Your task to perform on an android device: Go to Reddit.com Image 0: 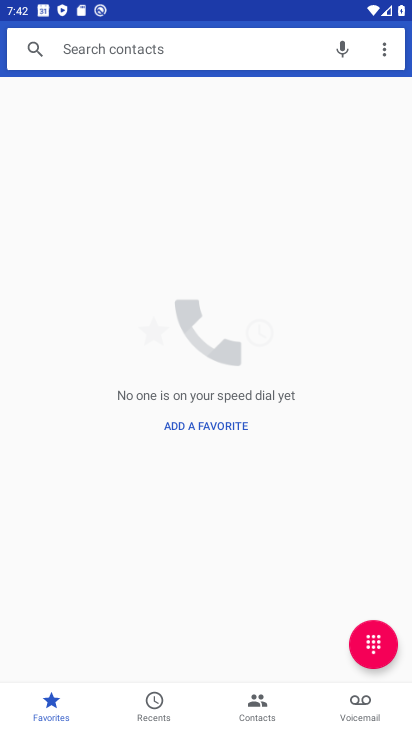
Step 0: press home button
Your task to perform on an android device: Go to Reddit.com Image 1: 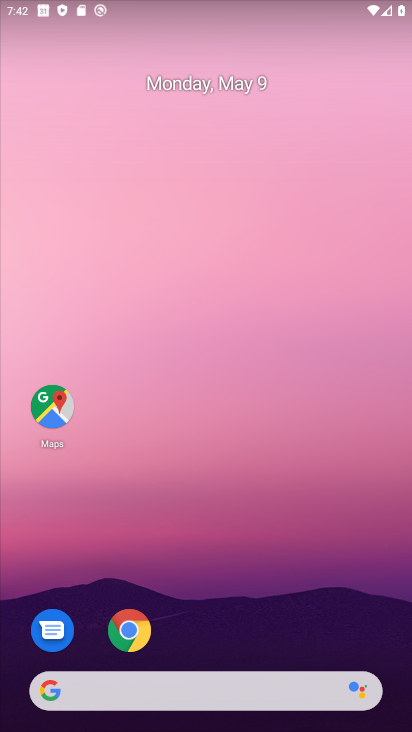
Step 1: drag from (353, 609) to (322, 113)
Your task to perform on an android device: Go to Reddit.com Image 2: 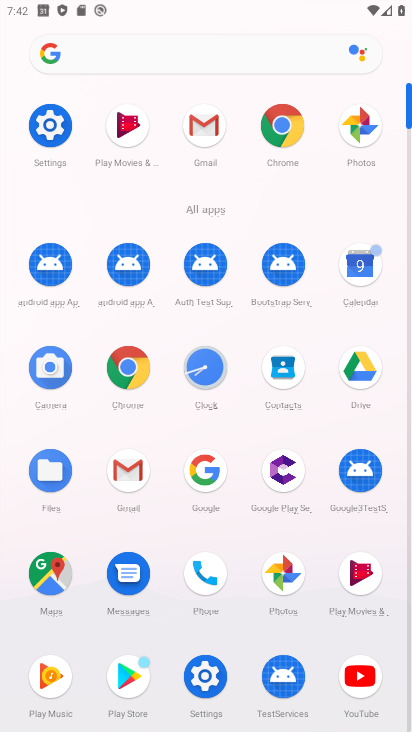
Step 2: click (300, 140)
Your task to perform on an android device: Go to Reddit.com Image 3: 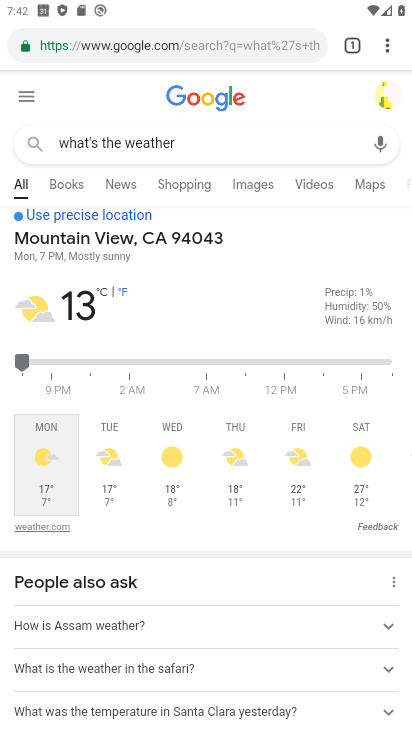
Step 3: click (194, 52)
Your task to perform on an android device: Go to Reddit.com Image 4: 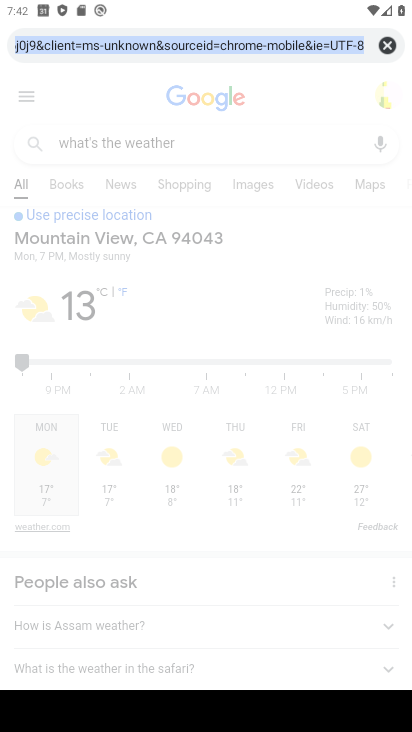
Step 4: click (390, 45)
Your task to perform on an android device: Go to Reddit.com Image 5: 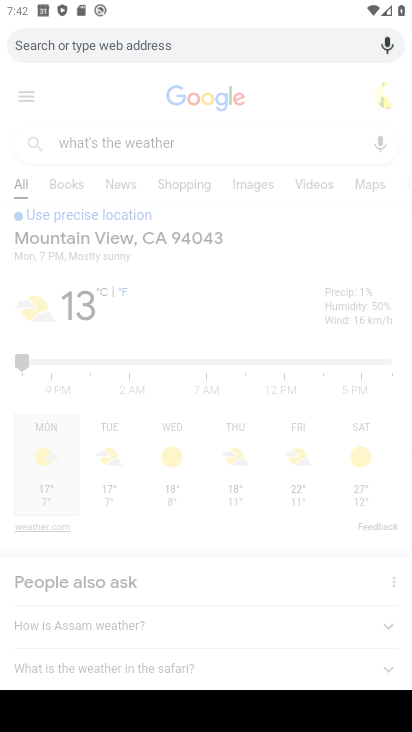
Step 5: type "reddit.com"
Your task to perform on an android device: Go to Reddit.com Image 6: 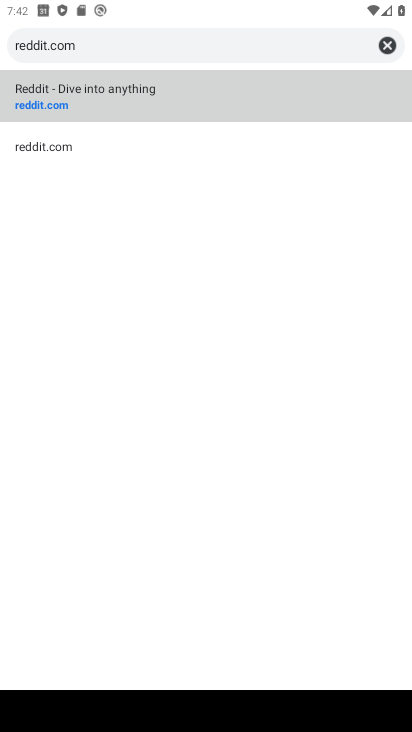
Step 6: click (108, 96)
Your task to perform on an android device: Go to Reddit.com Image 7: 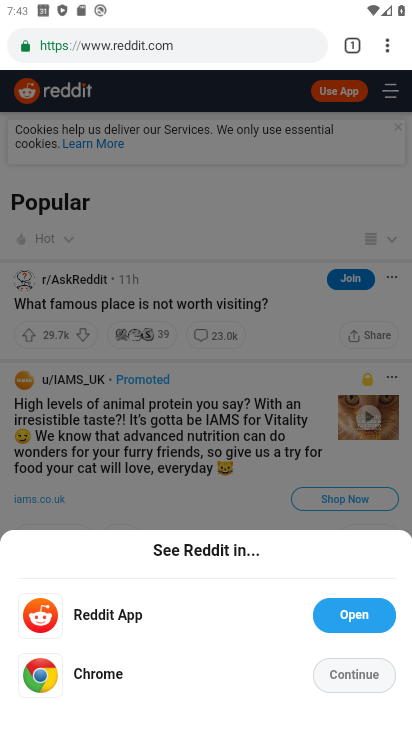
Step 7: task complete